Your task to perform on an android device: Search for vegetarian restaurants on Maps Image 0: 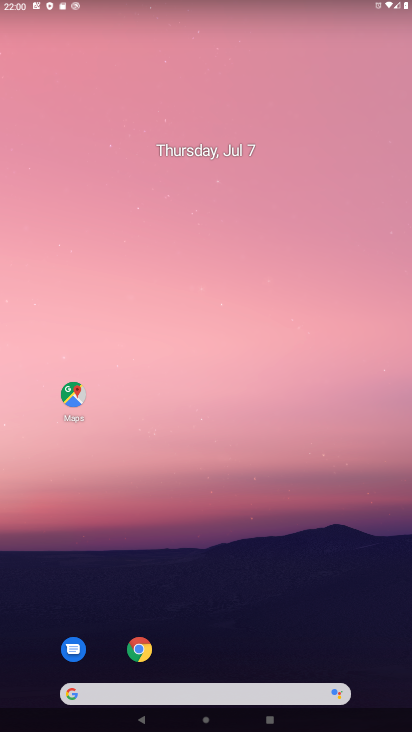
Step 0: drag from (236, 729) to (180, 147)
Your task to perform on an android device: Search for vegetarian restaurants on Maps Image 1: 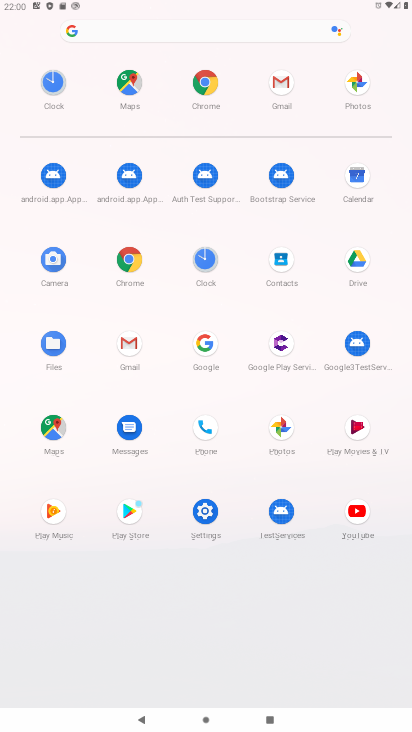
Step 1: click (51, 421)
Your task to perform on an android device: Search for vegetarian restaurants on Maps Image 2: 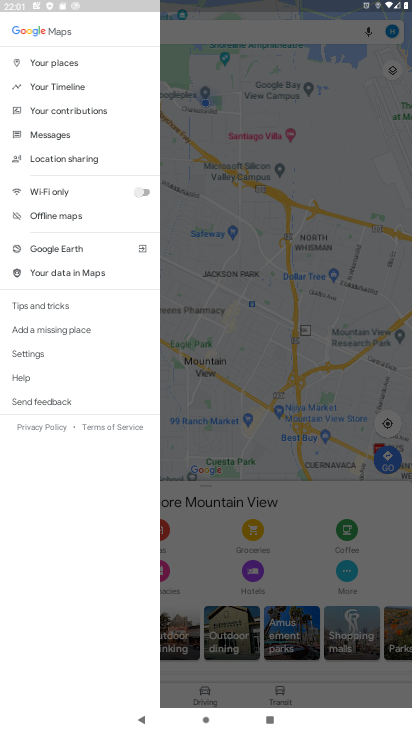
Step 2: click (240, 26)
Your task to perform on an android device: Search for vegetarian restaurants on Maps Image 3: 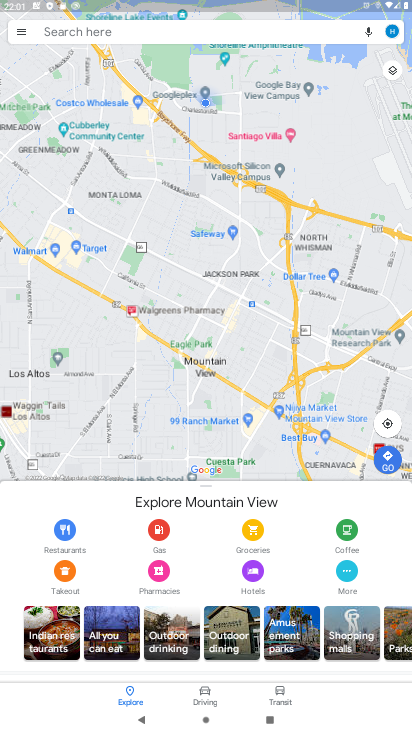
Step 3: click (199, 29)
Your task to perform on an android device: Search for vegetarian restaurants on Maps Image 4: 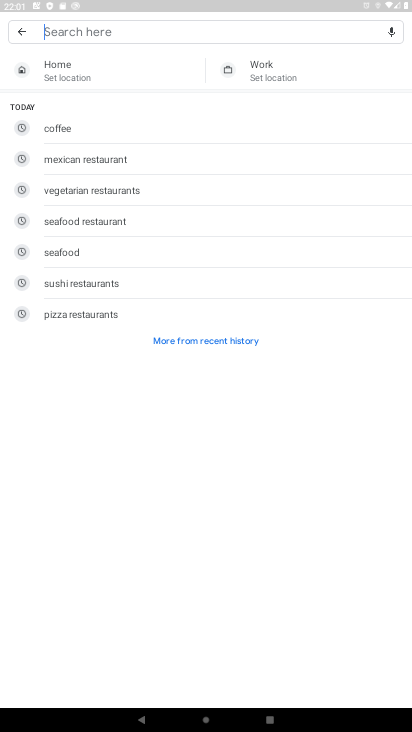
Step 4: type "Vegetarian"
Your task to perform on an android device: Search for vegetarian restaurants on Maps Image 5: 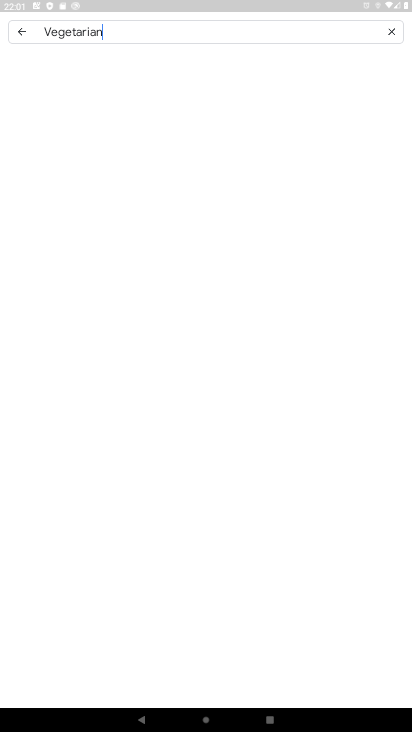
Step 5: type ""
Your task to perform on an android device: Search for vegetarian restaurants on Maps Image 6: 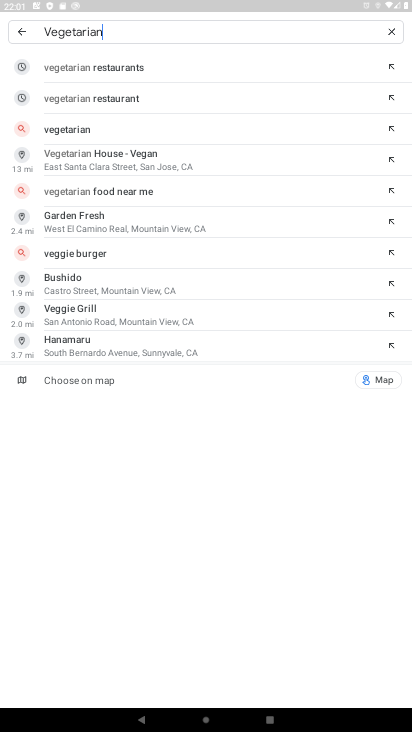
Step 6: click (118, 66)
Your task to perform on an android device: Search for vegetarian restaurants on Maps Image 7: 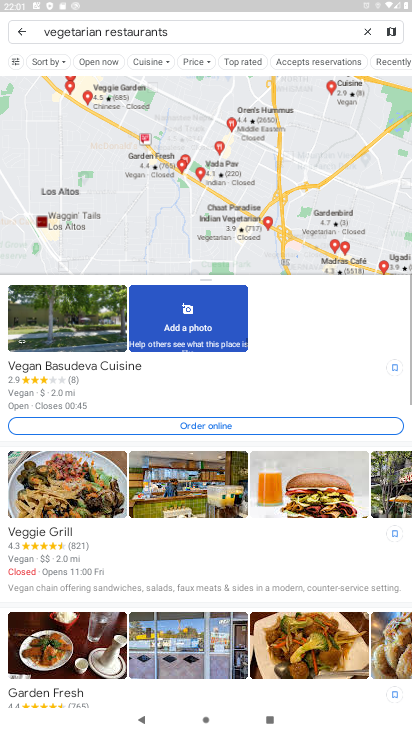
Step 7: task complete